Your task to perform on an android device: Go to Reddit.com Image 0: 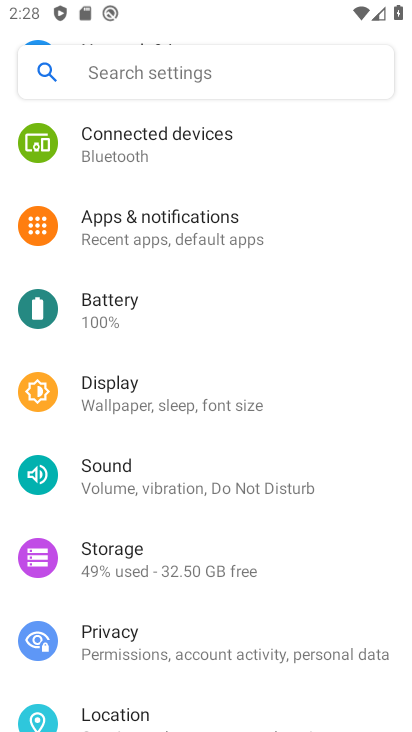
Step 0: press home button
Your task to perform on an android device: Go to Reddit.com Image 1: 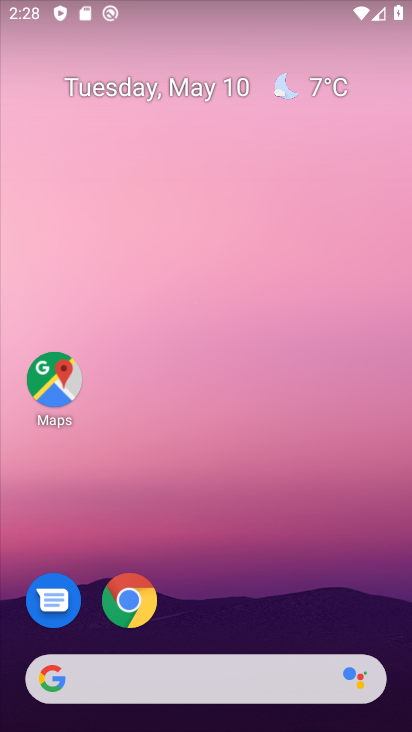
Step 1: click (125, 629)
Your task to perform on an android device: Go to Reddit.com Image 2: 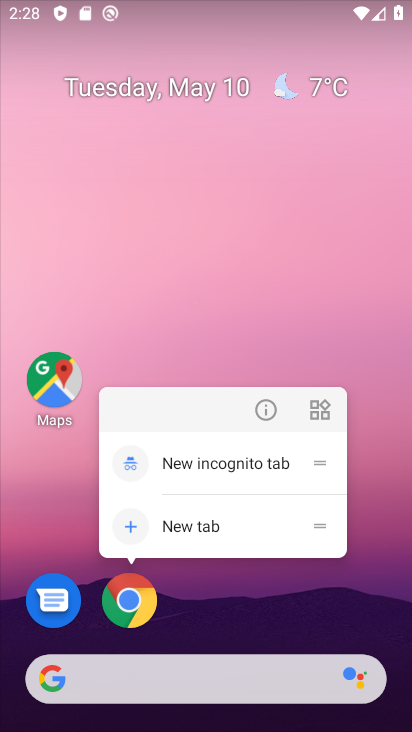
Step 2: click (134, 596)
Your task to perform on an android device: Go to Reddit.com Image 3: 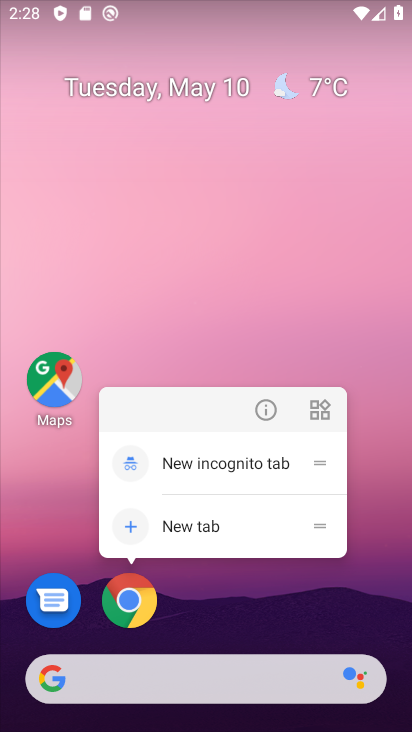
Step 3: click (134, 596)
Your task to perform on an android device: Go to Reddit.com Image 4: 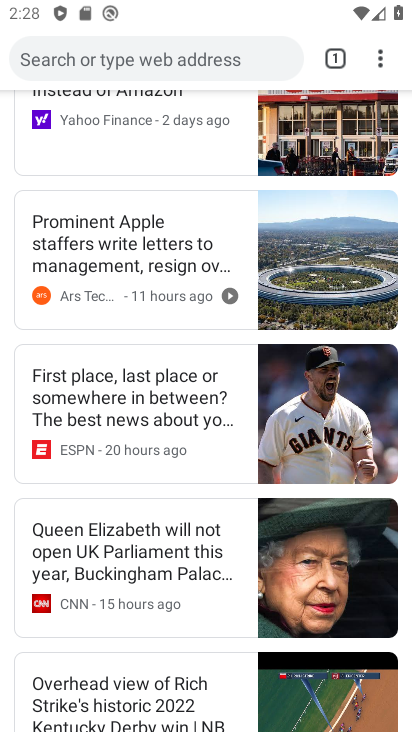
Step 4: click (164, 60)
Your task to perform on an android device: Go to Reddit.com Image 5: 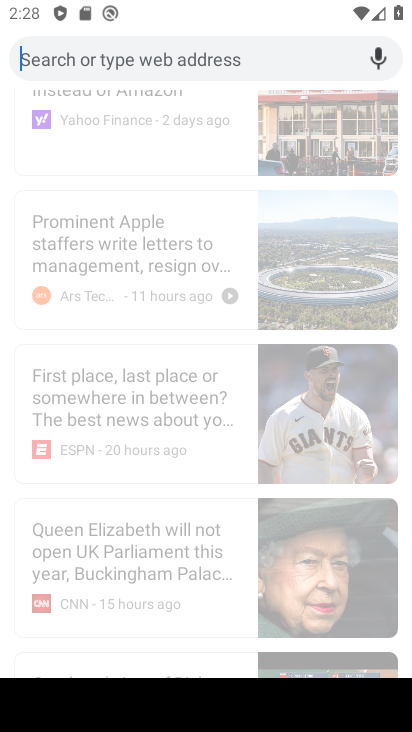
Step 5: type "reddit.com"
Your task to perform on an android device: Go to Reddit.com Image 6: 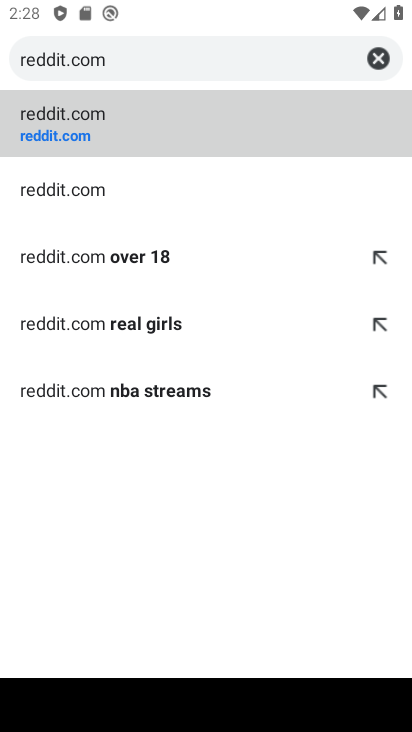
Step 6: click (194, 155)
Your task to perform on an android device: Go to Reddit.com Image 7: 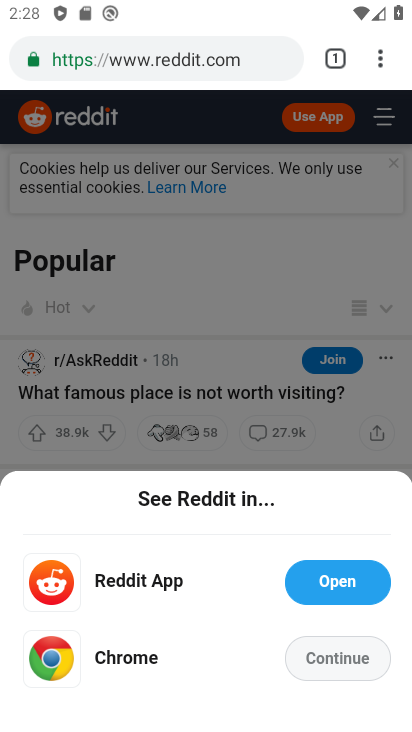
Step 7: task complete